Your task to perform on an android device: turn off data saver in the chrome app Image 0: 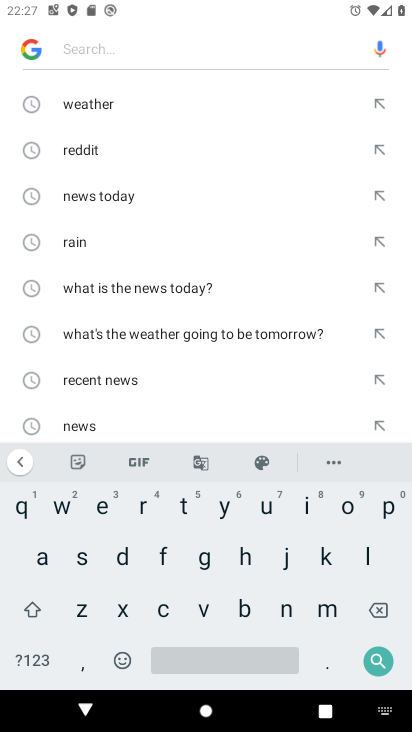
Step 0: press home button
Your task to perform on an android device: turn off data saver in the chrome app Image 1: 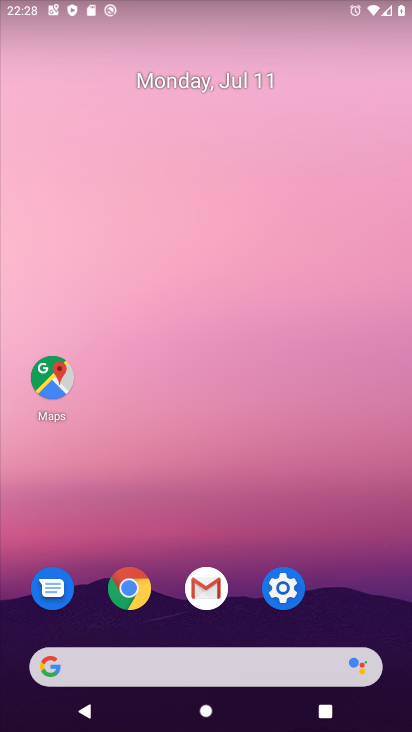
Step 1: click (135, 574)
Your task to perform on an android device: turn off data saver in the chrome app Image 2: 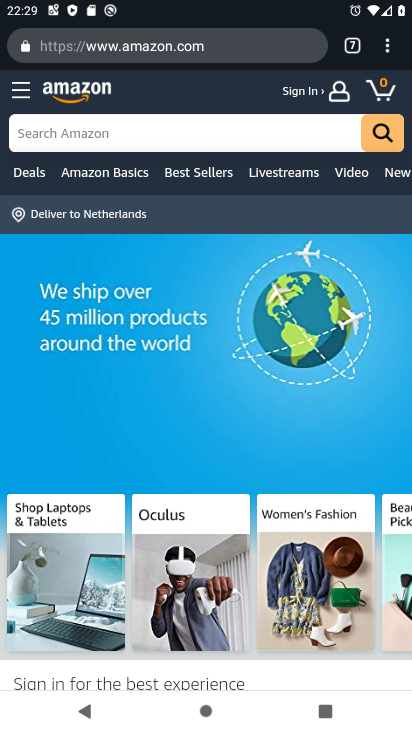
Step 2: click (392, 50)
Your task to perform on an android device: turn off data saver in the chrome app Image 3: 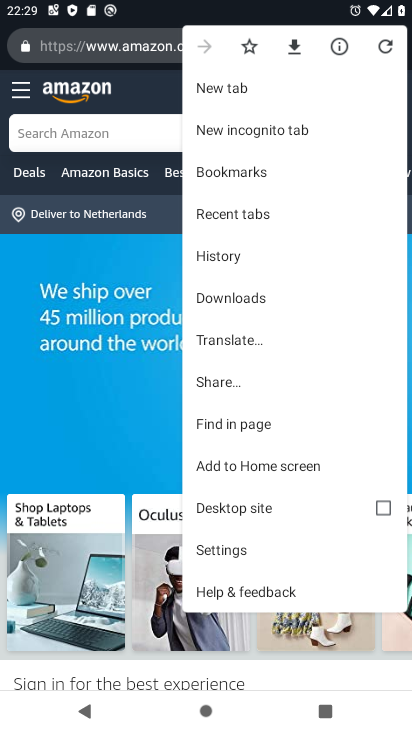
Step 3: click (231, 550)
Your task to perform on an android device: turn off data saver in the chrome app Image 4: 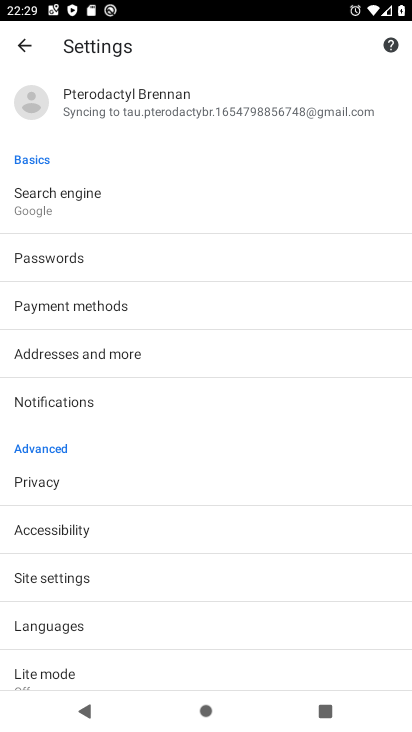
Step 4: drag from (114, 633) to (123, 552)
Your task to perform on an android device: turn off data saver in the chrome app Image 5: 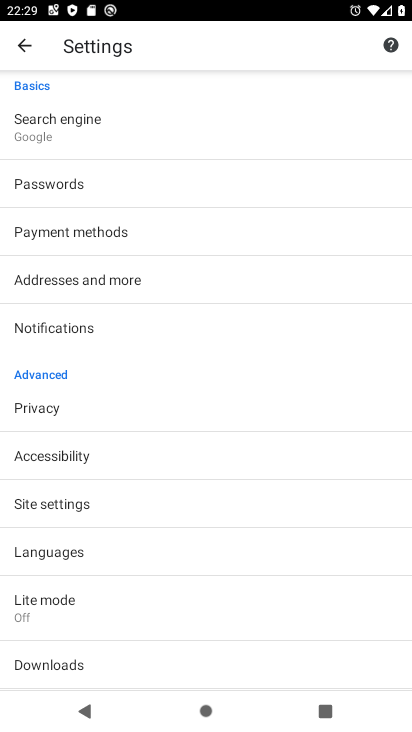
Step 5: click (76, 599)
Your task to perform on an android device: turn off data saver in the chrome app Image 6: 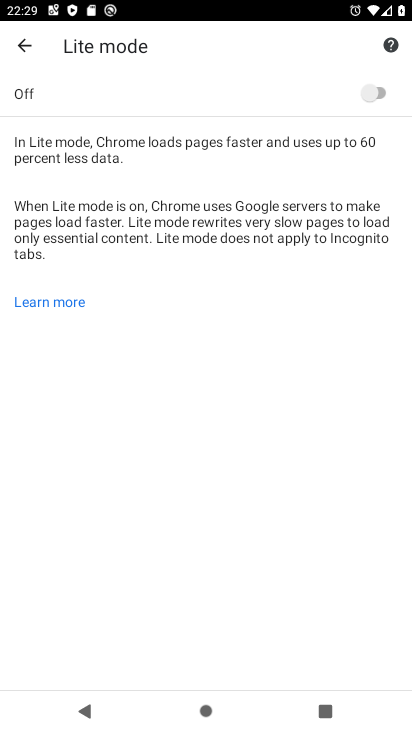
Step 6: click (367, 91)
Your task to perform on an android device: turn off data saver in the chrome app Image 7: 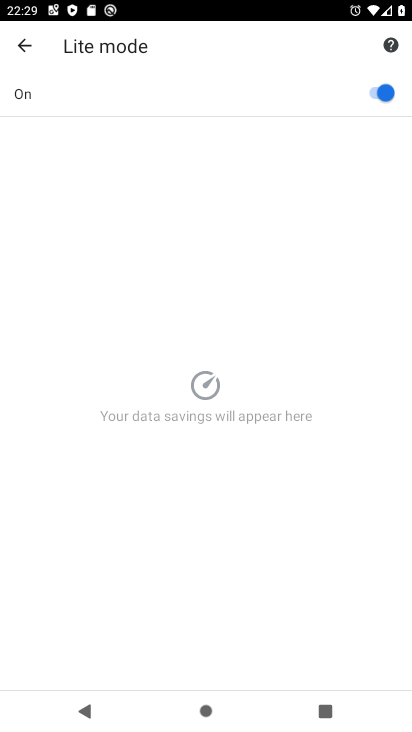
Step 7: click (367, 91)
Your task to perform on an android device: turn off data saver in the chrome app Image 8: 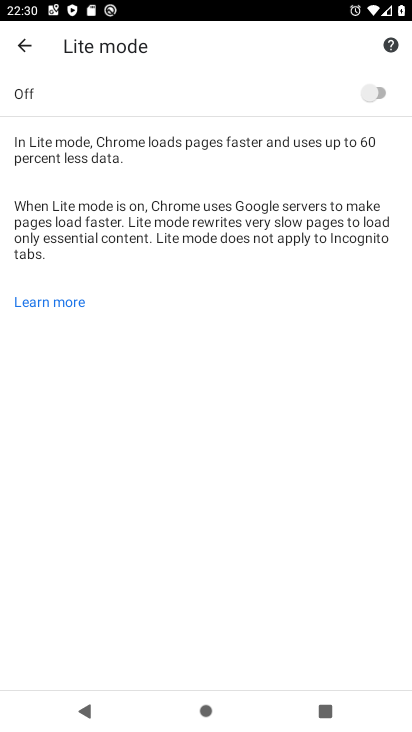
Step 8: task complete